Your task to perform on an android device: open a bookmark in the chrome app Image 0: 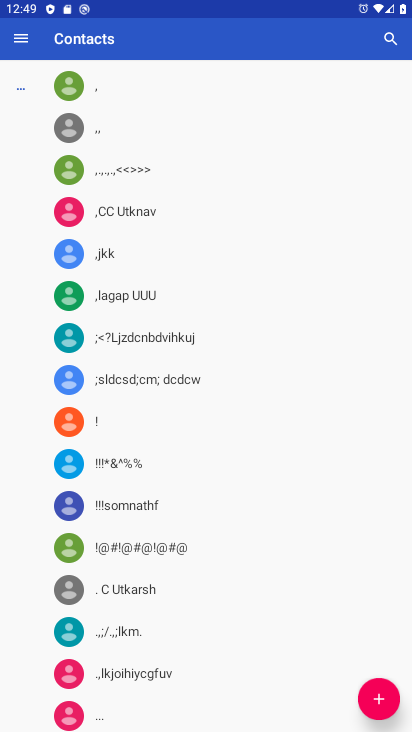
Step 0: press home button
Your task to perform on an android device: open a bookmark in the chrome app Image 1: 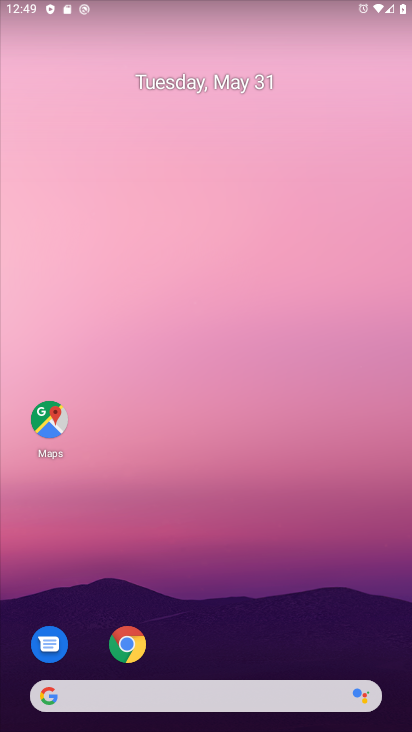
Step 1: click (131, 643)
Your task to perform on an android device: open a bookmark in the chrome app Image 2: 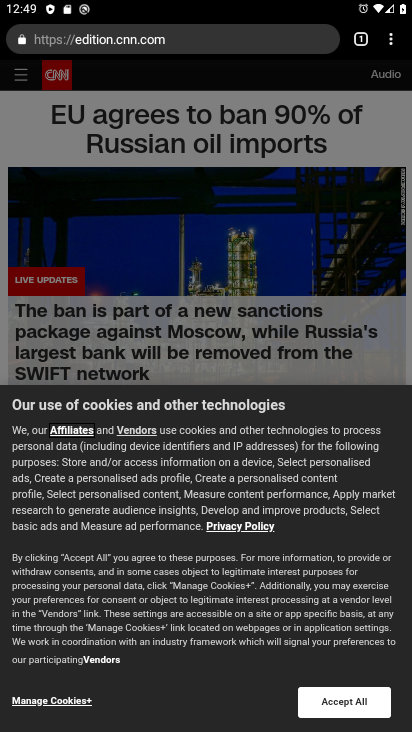
Step 2: click (392, 41)
Your task to perform on an android device: open a bookmark in the chrome app Image 3: 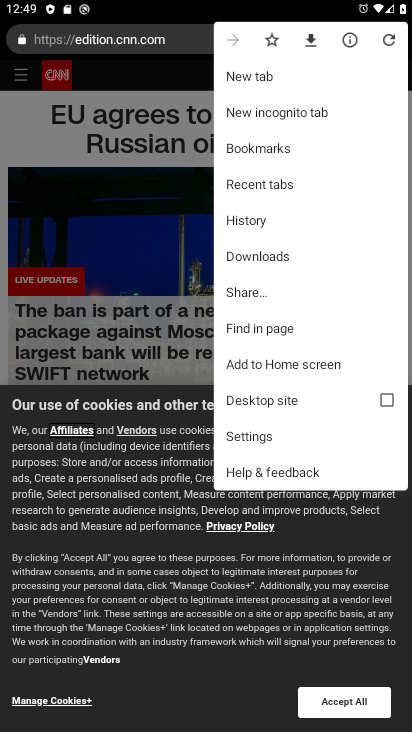
Step 3: click (257, 143)
Your task to perform on an android device: open a bookmark in the chrome app Image 4: 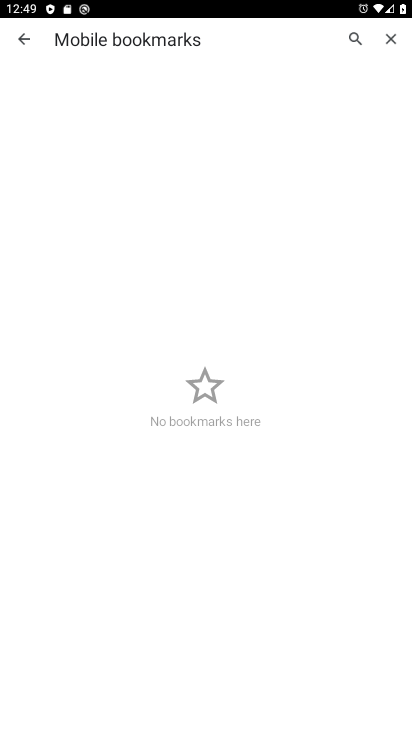
Step 4: task complete